Your task to perform on an android device: Check the weather Image 0: 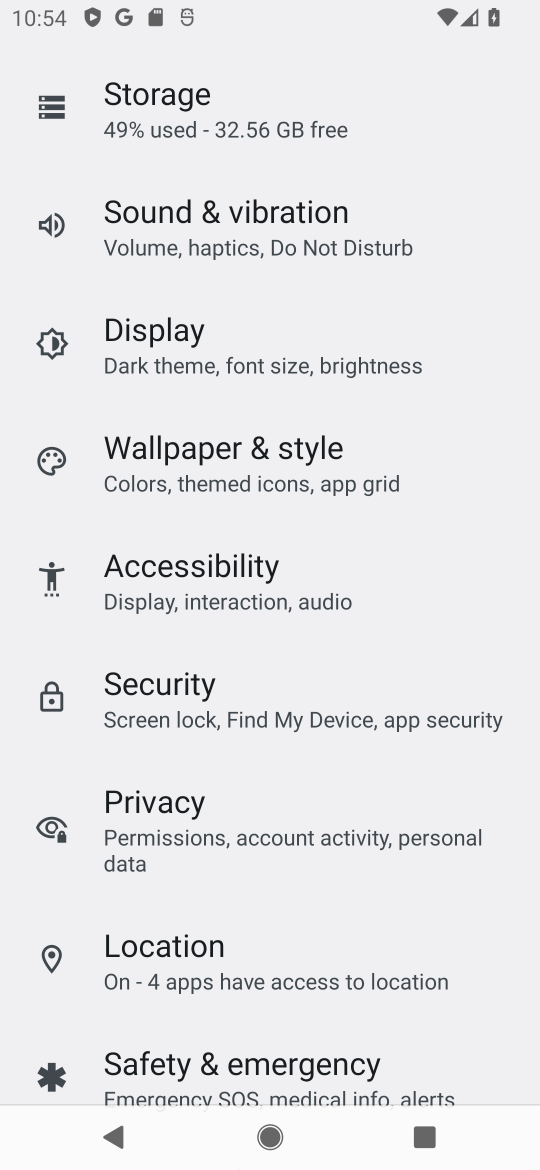
Step 0: press home button
Your task to perform on an android device: Check the weather Image 1: 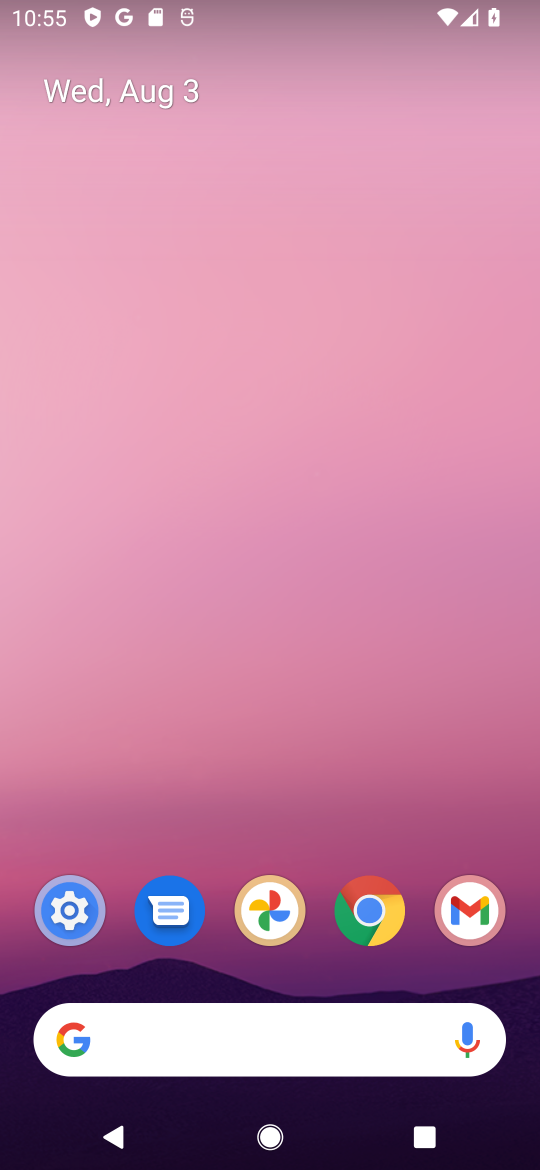
Step 1: click (46, 1044)
Your task to perform on an android device: Check the weather Image 2: 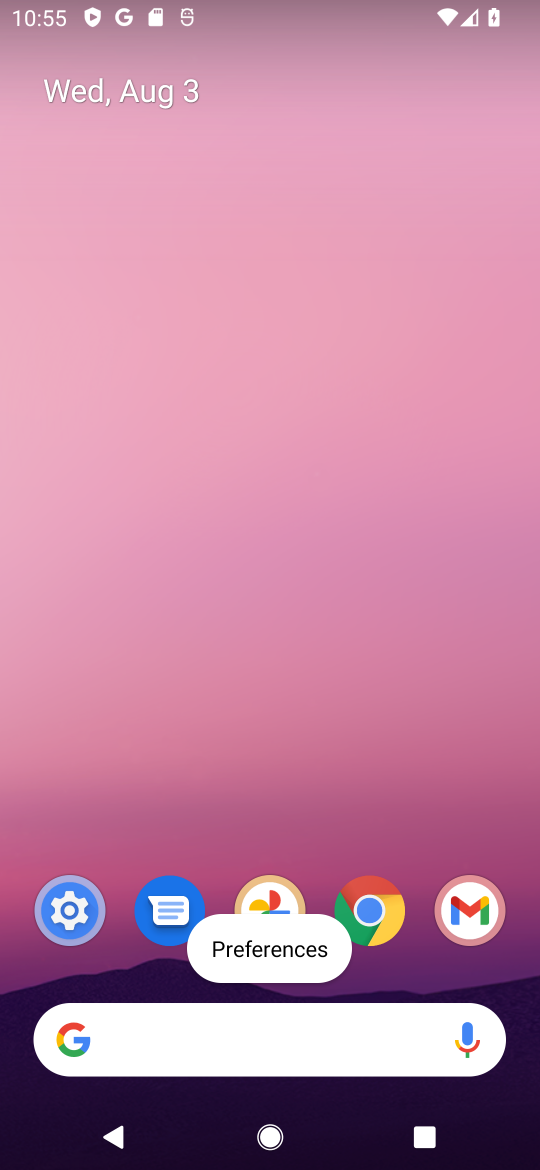
Step 2: click (84, 1046)
Your task to perform on an android device: Check the weather Image 3: 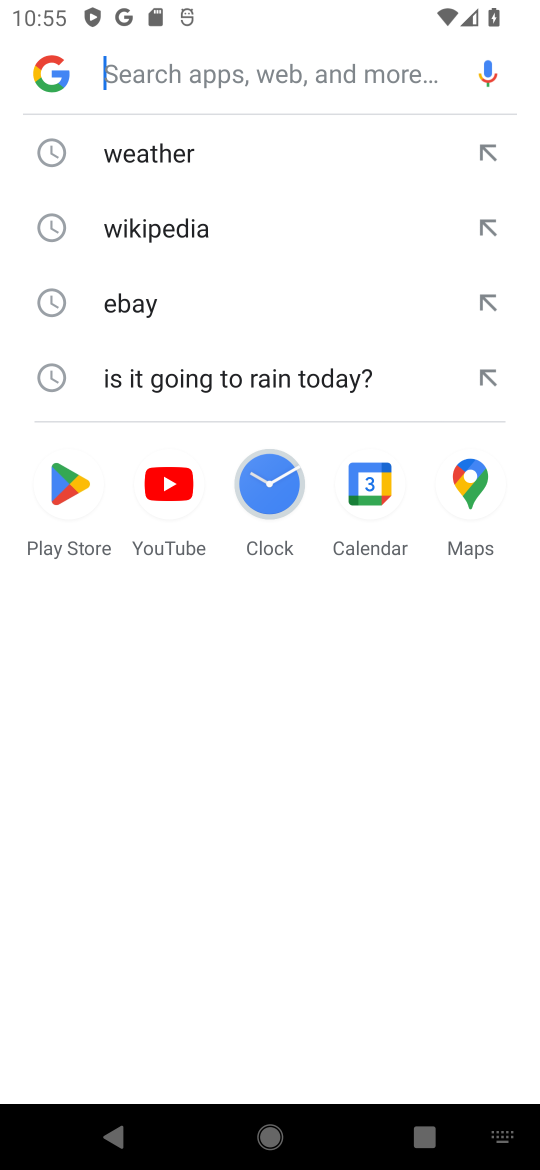
Step 3: click (148, 162)
Your task to perform on an android device: Check the weather Image 4: 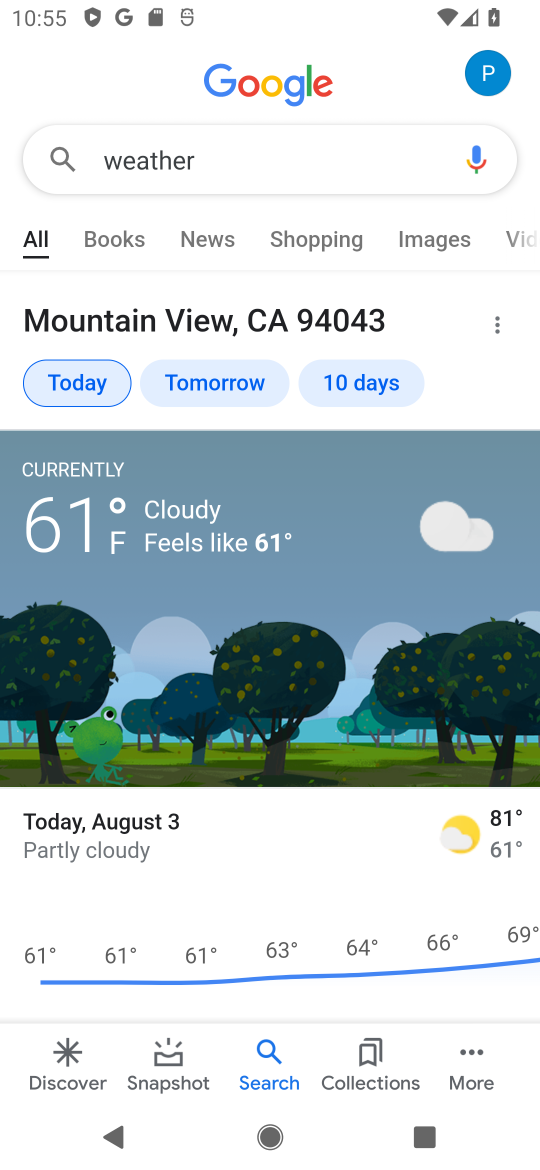
Step 4: task complete